Your task to perform on an android device: empty trash in the gmail app Image 0: 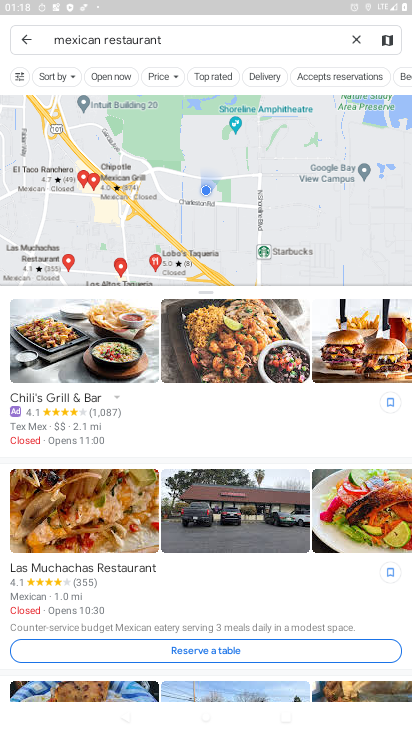
Step 0: press home button
Your task to perform on an android device: empty trash in the gmail app Image 1: 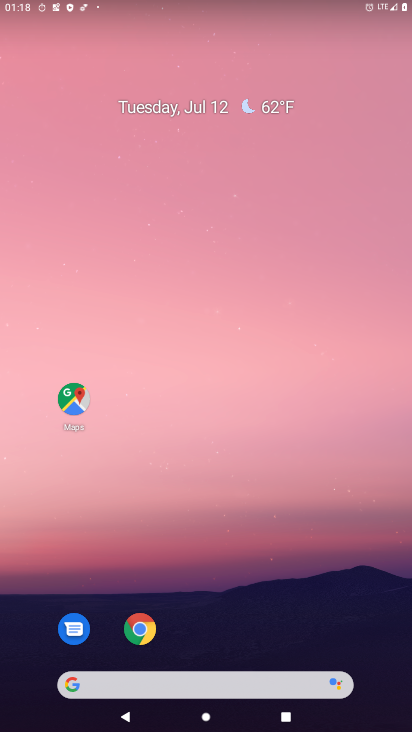
Step 1: drag from (292, 632) to (329, 10)
Your task to perform on an android device: empty trash in the gmail app Image 2: 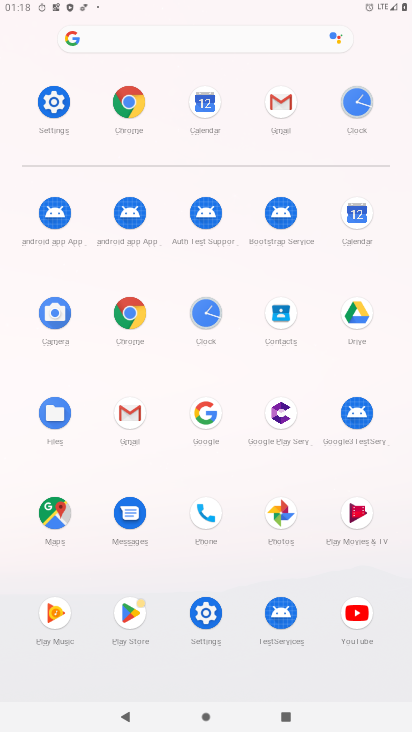
Step 2: click (124, 407)
Your task to perform on an android device: empty trash in the gmail app Image 3: 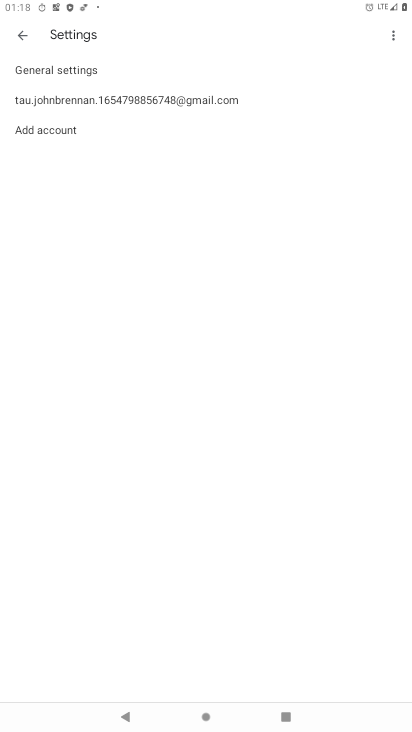
Step 3: click (25, 34)
Your task to perform on an android device: empty trash in the gmail app Image 4: 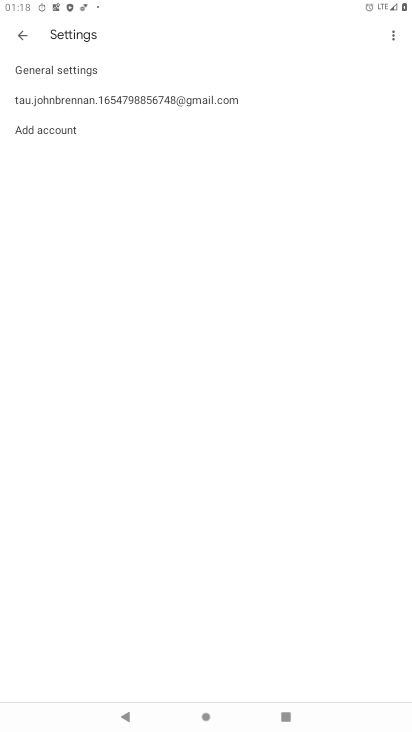
Step 4: click (18, 30)
Your task to perform on an android device: empty trash in the gmail app Image 5: 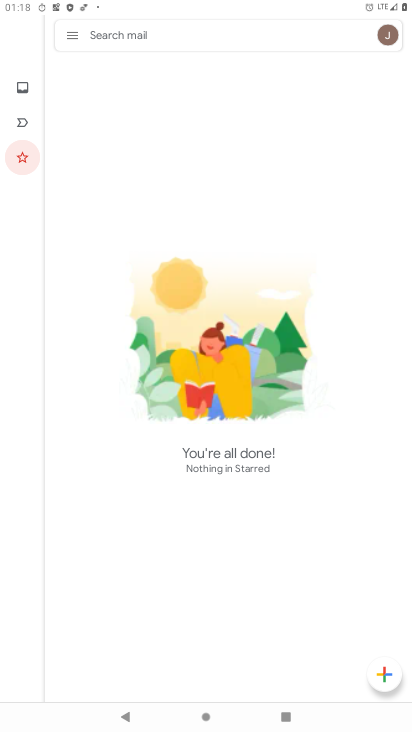
Step 5: click (69, 36)
Your task to perform on an android device: empty trash in the gmail app Image 6: 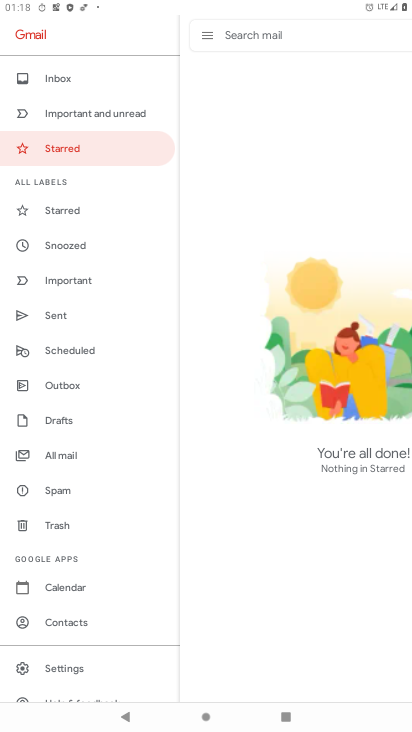
Step 6: click (67, 519)
Your task to perform on an android device: empty trash in the gmail app Image 7: 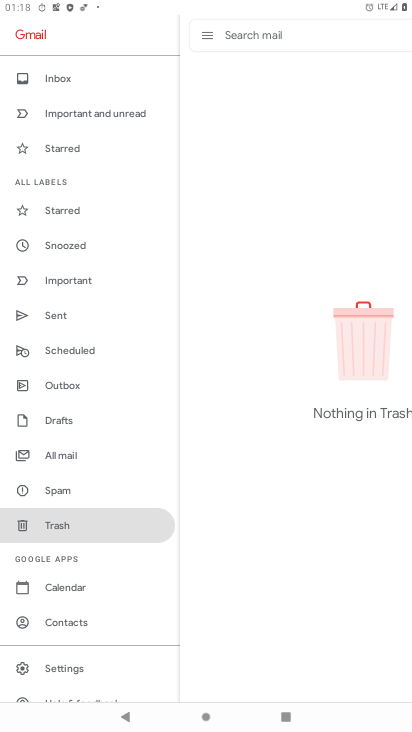
Step 7: task complete